Your task to perform on an android device: What's the latest news in space science? Image 0: 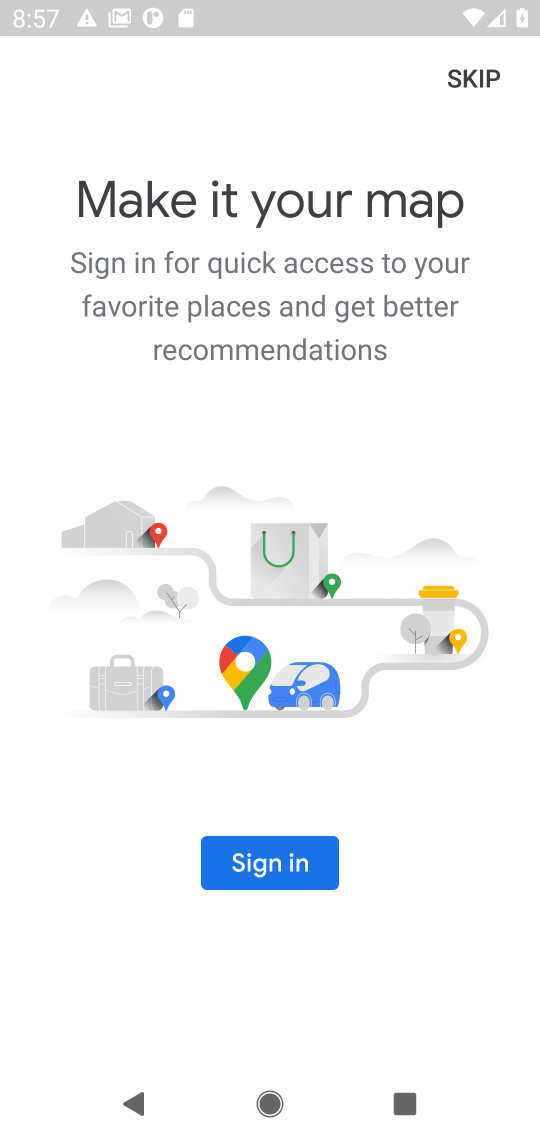
Step 0: press home button
Your task to perform on an android device: What's the latest news in space science? Image 1: 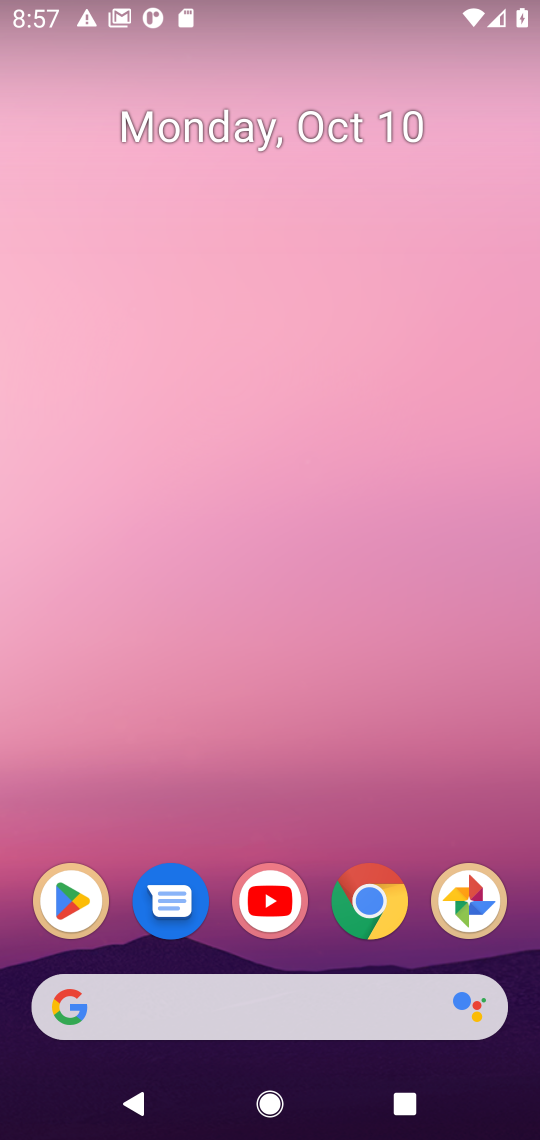
Step 1: click (313, 1003)
Your task to perform on an android device: What's the latest news in space science? Image 2: 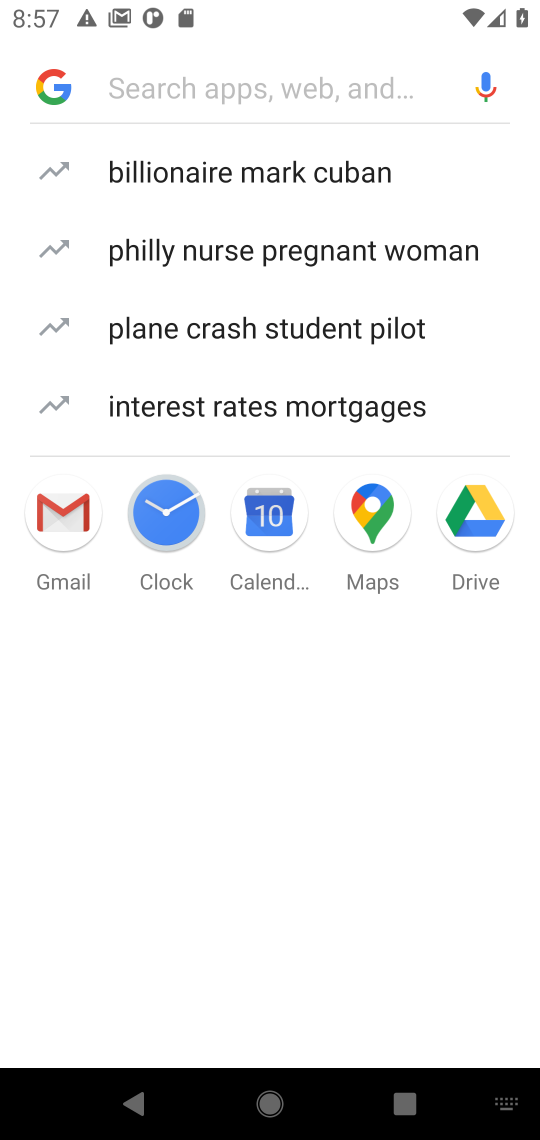
Step 2: type "What's the latest news in space science"
Your task to perform on an android device: What's the latest news in space science? Image 3: 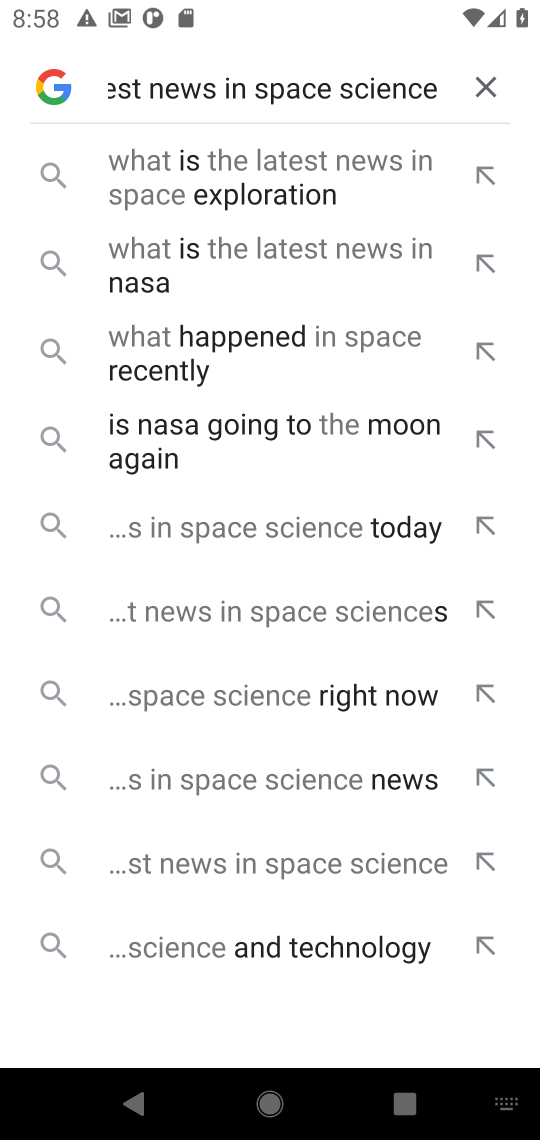
Step 3: press enter
Your task to perform on an android device: What's the latest news in space science? Image 4: 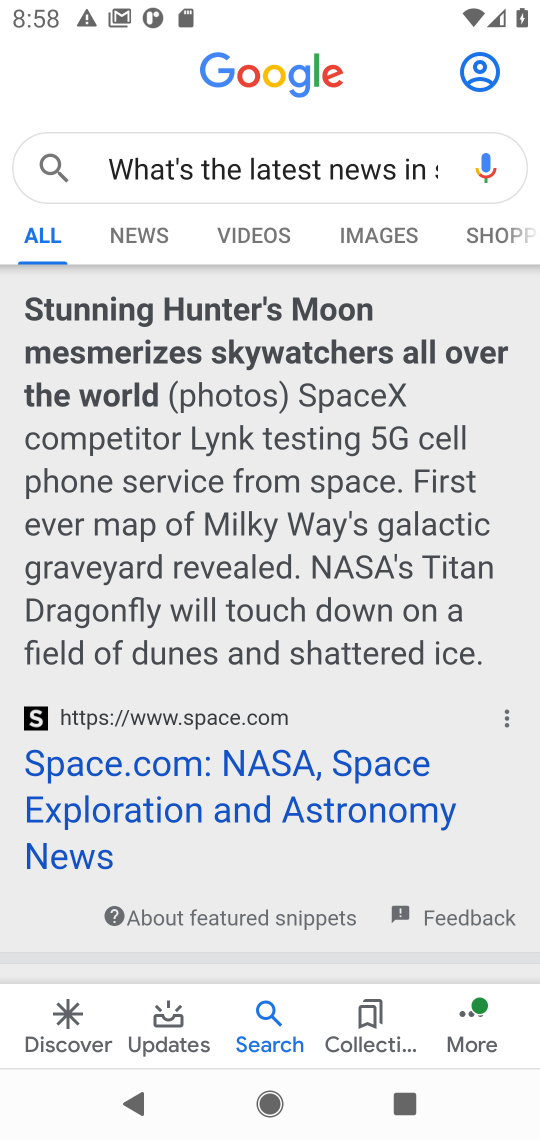
Step 4: drag from (266, 828) to (289, 449)
Your task to perform on an android device: What's the latest news in space science? Image 5: 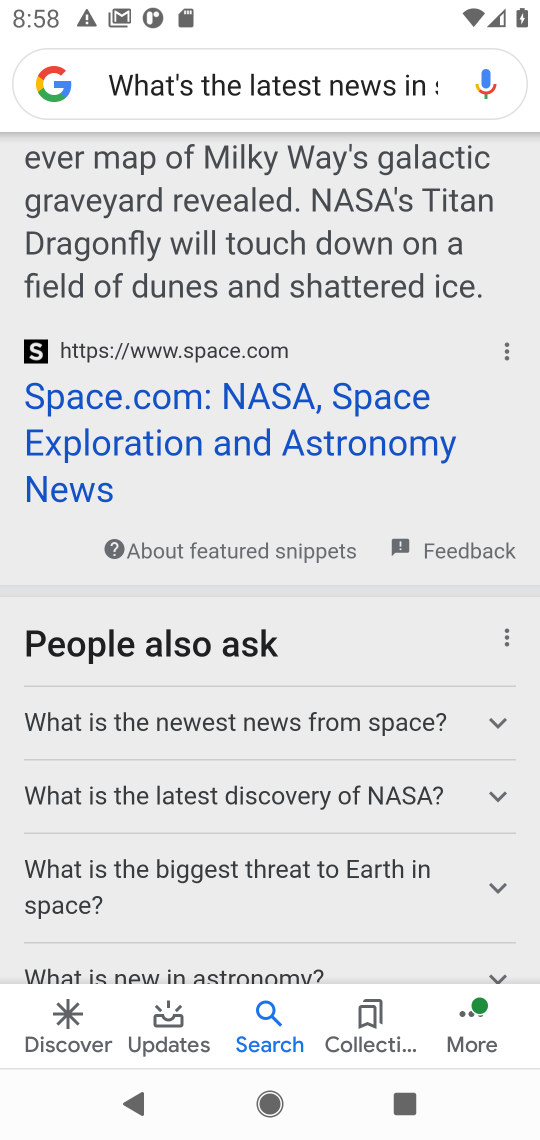
Step 5: drag from (264, 830) to (256, 432)
Your task to perform on an android device: What's the latest news in space science? Image 6: 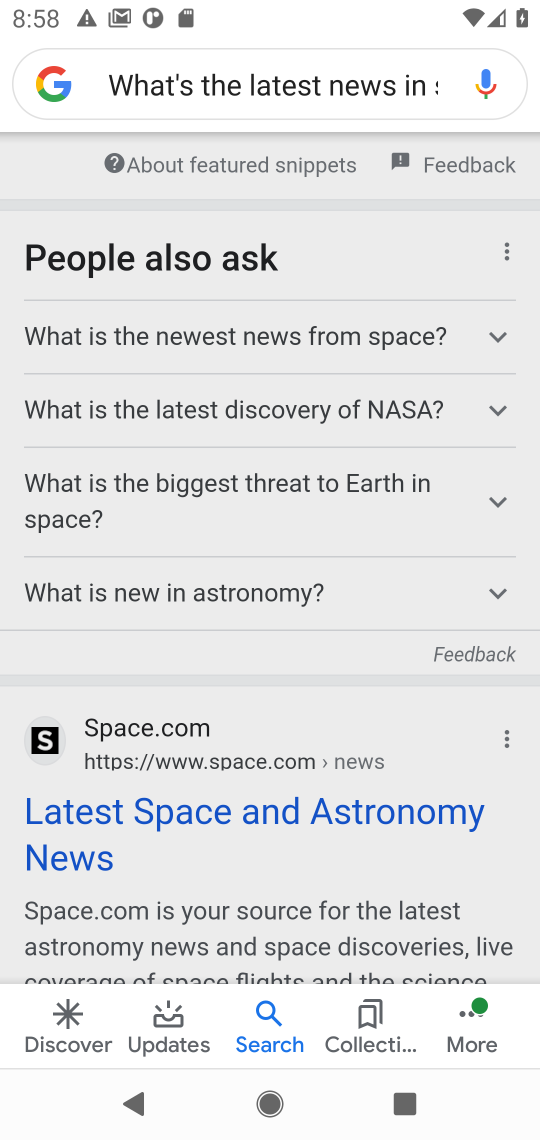
Step 6: click (375, 816)
Your task to perform on an android device: What's the latest news in space science? Image 7: 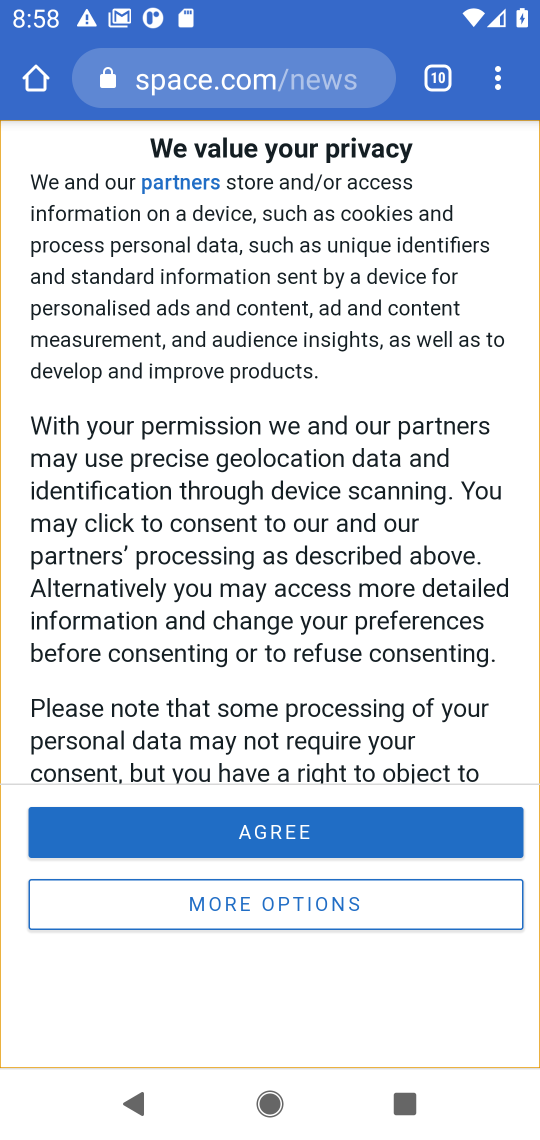
Step 7: click (299, 840)
Your task to perform on an android device: What's the latest news in space science? Image 8: 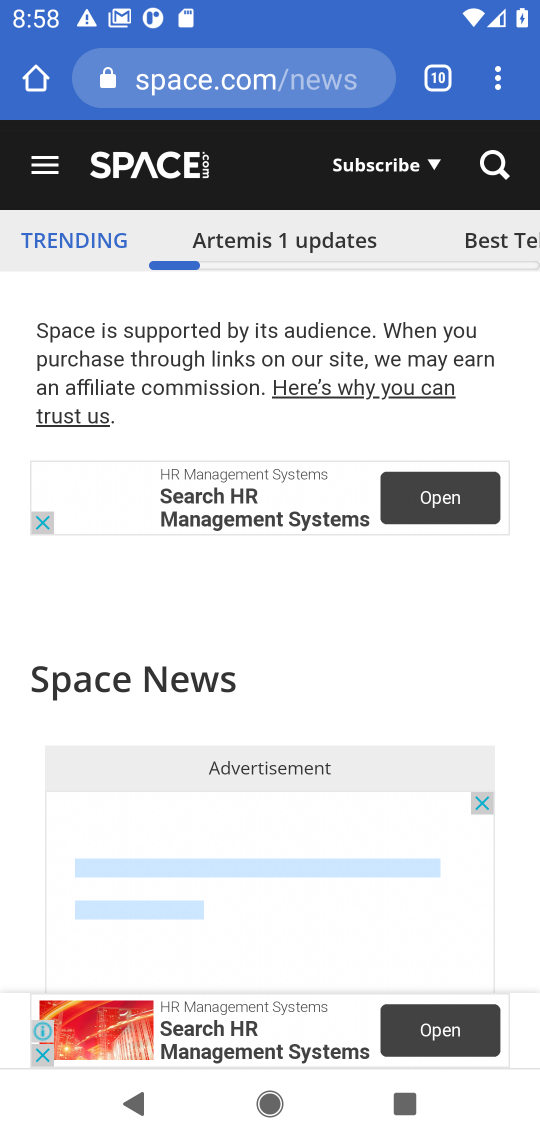
Step 8: task complete